Your task to perform on an android device: Open the phone app and click the voicemail tab. Image 0: 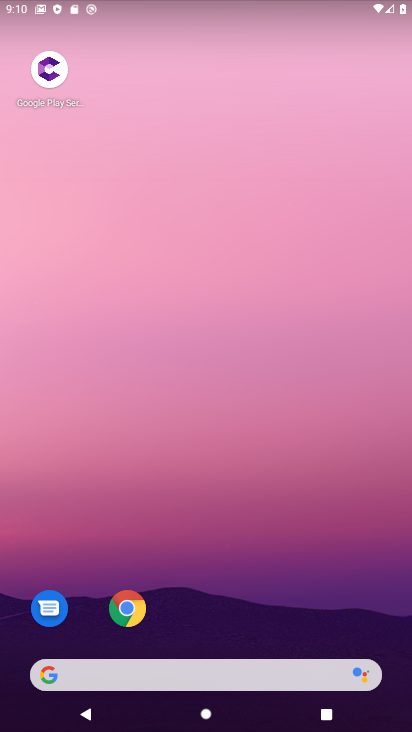
Step 0: drag from (236, 604) to (275, 199)
Your task to perform on an android device: Open the phone app and click the voicemail tab. Image 1: 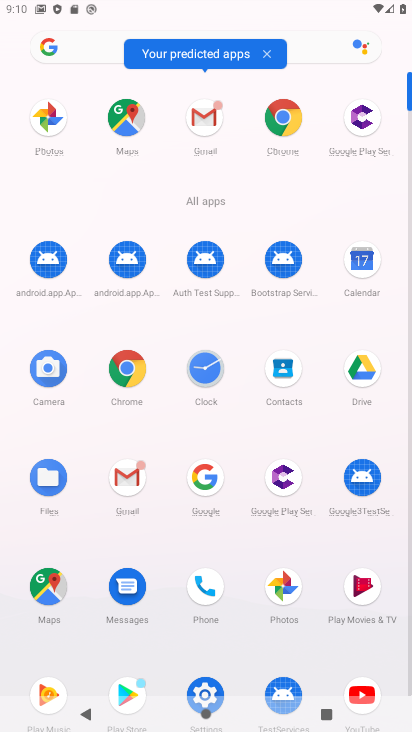
Step 1: task complete